Your task to perform on an android device: turn on translation in the chrome app Image 0: 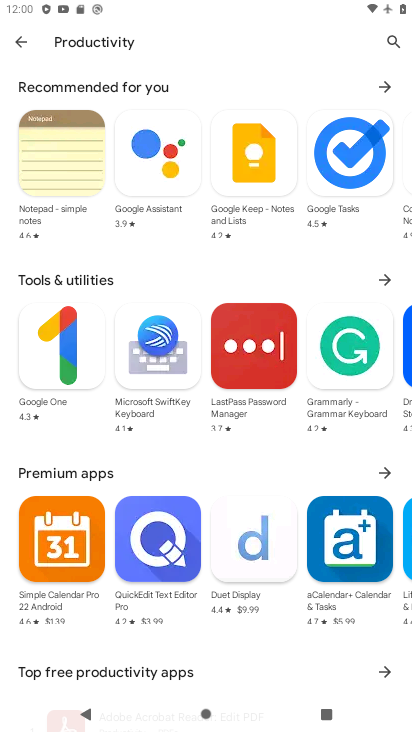
Step 0: press home button
Your task to perform on an android device: turn on translation in the chrome app Image 1: 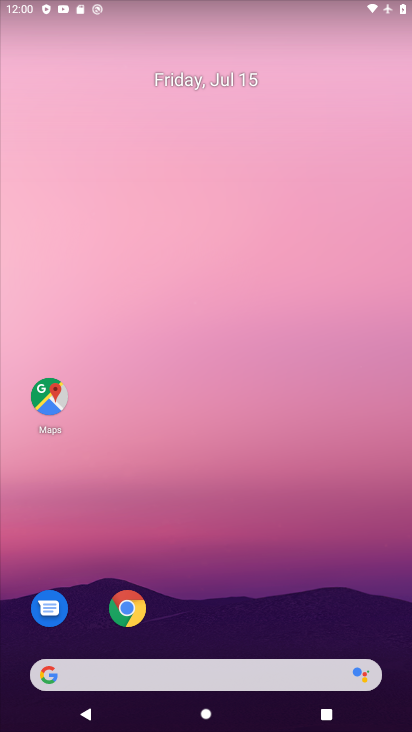
Step 1: drag from (232, 611) to (252, 120)
Your task to perform on an android device: turn on translation in the chrome app Image 2: 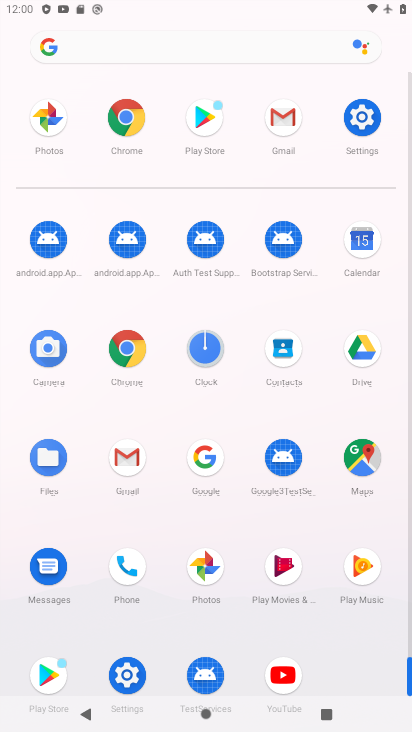
Step 2: click (126, 348)
Your task to perform on an android device: turn on translation in the chrome app Image 3: 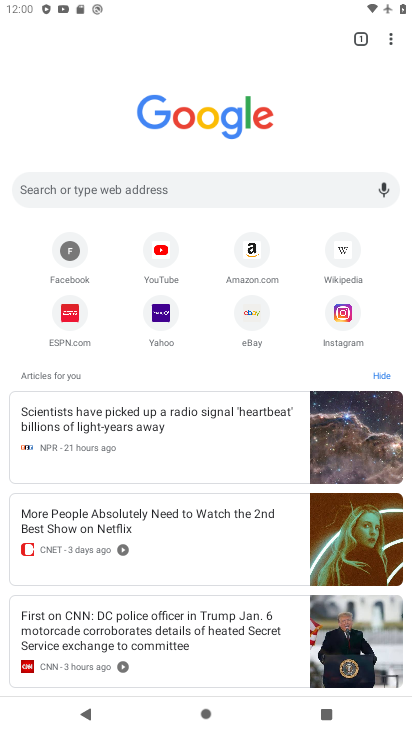
Step 3: click (388, 36)
Your task to perform on an android device: turn on translation in the chrome app Image 4: 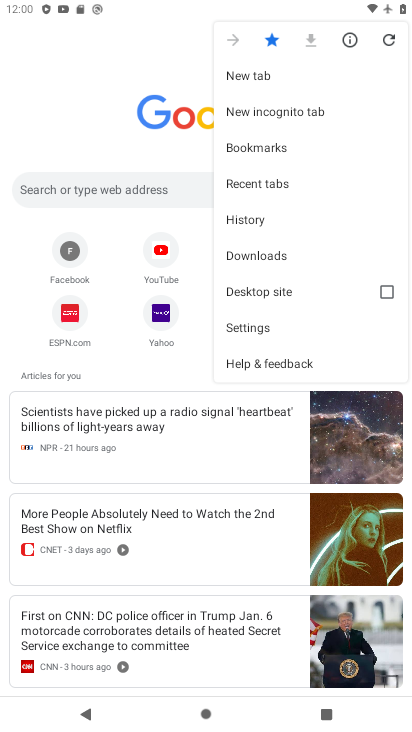
Step 4: click (263, 325)
Your task to perform on an android device: turn on translation in the chrome app Image 5: 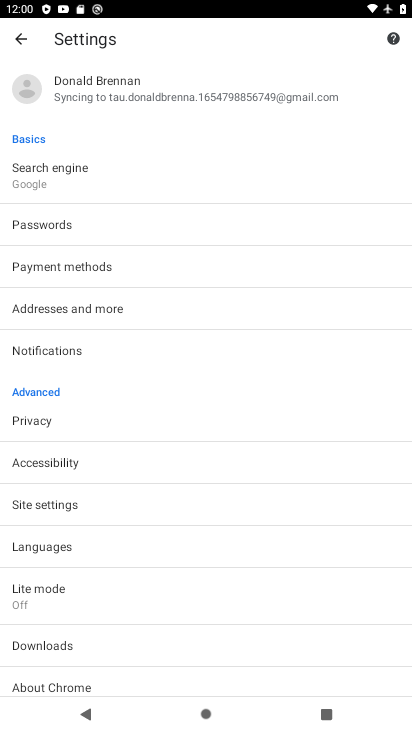
Step 5: click (77, 543)
Your task to perform on an android device: turn on translation in the chrome app Image 6: 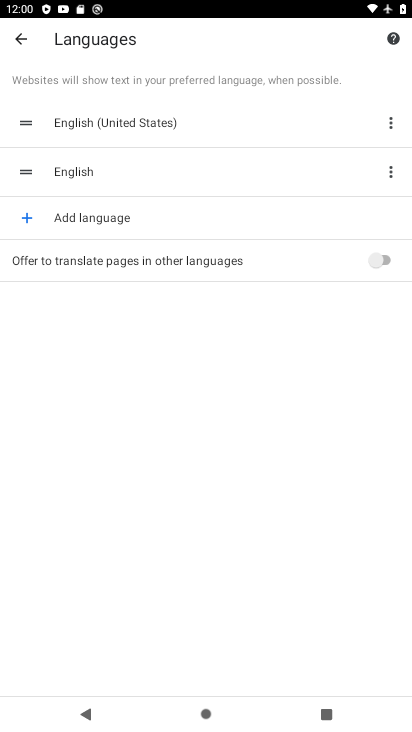
Step 6: click (383, 259)
Your task to perform on an android device: turn on translation in the chrome app Image 7: 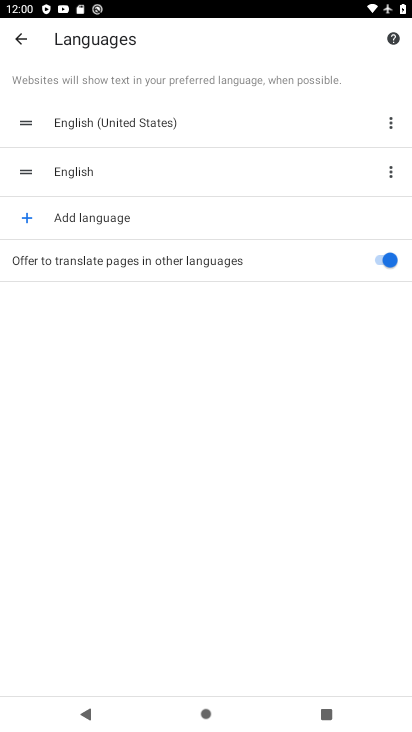
Step 7: task complete